Your task to perform on an android device: open chrome privacy settings Image 0: 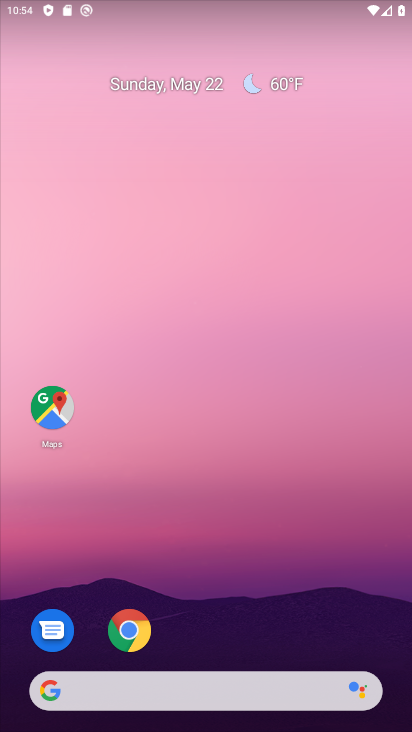
Step 0: click (131, 629)
Your task to perform on an android device: open chrome privacy settings Image 1: 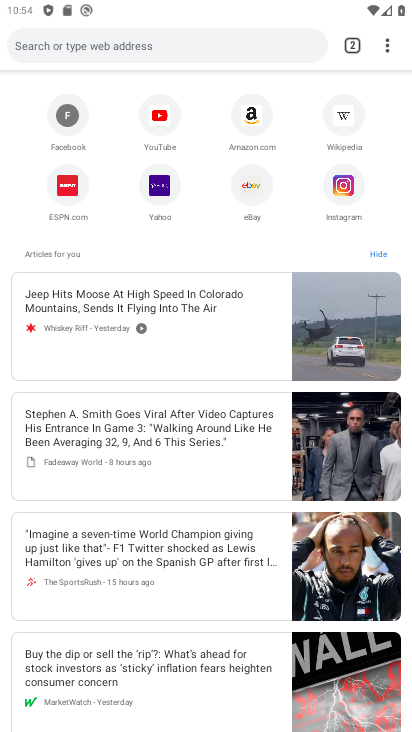
Step 1: click (388, 44)
Your task to perform on an android device: open chrome privacy settings Image 2: 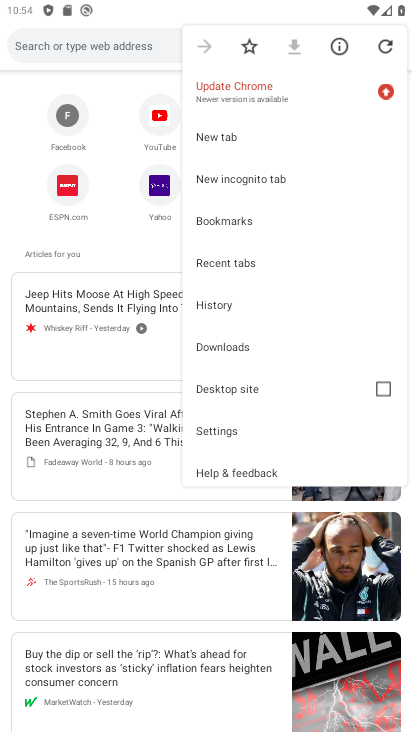
Step 2: click (220, 431)
Your task to perform on an android device: open chrome privacy settings Image 3: 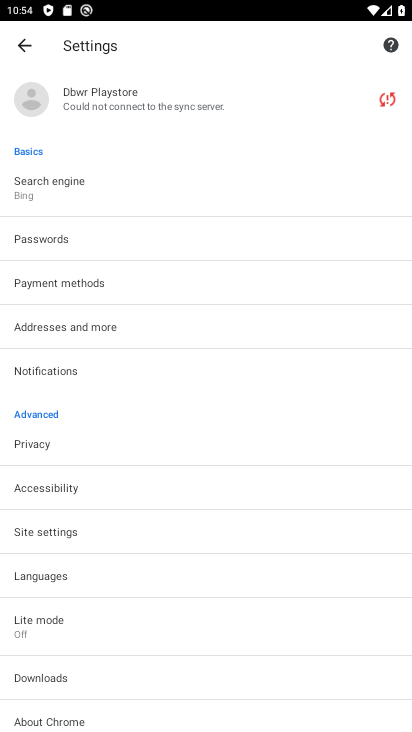
Step 3: click (36, 442)
Your task to perform on an android device: open chrome privacy settings Image 4: 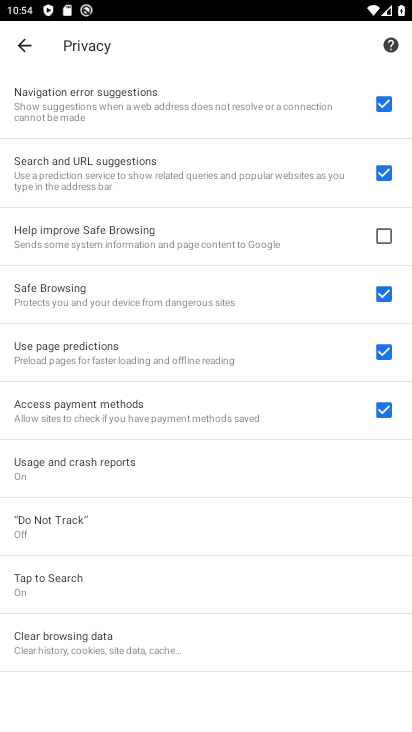
Step 4: task complete